Your task to perform on an android device: open device folders in google photos Image 0: 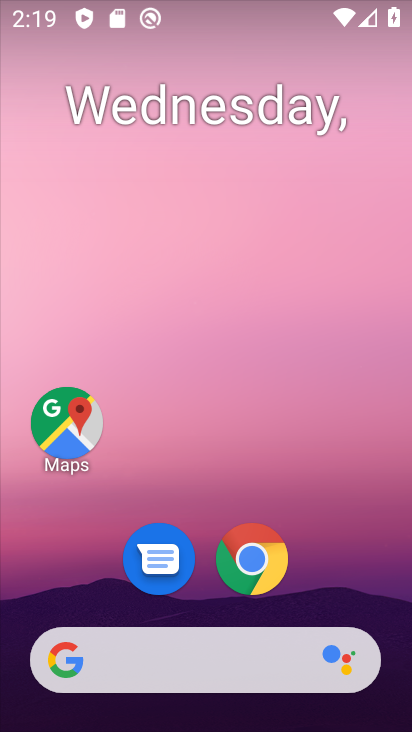
Step 0: drag from (332, 574) to (343, 217)
Your task to perform on an android device: open device folders in google photos Image 1: 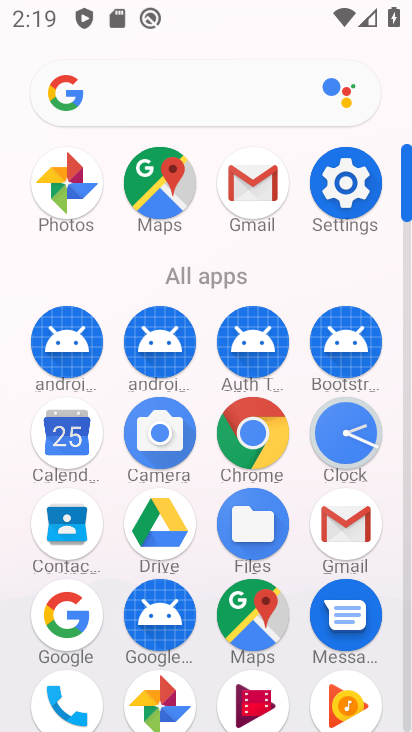
Step 1: click (182, 705)
Your task to perform on an android device: open device folders in google photos Image 2: 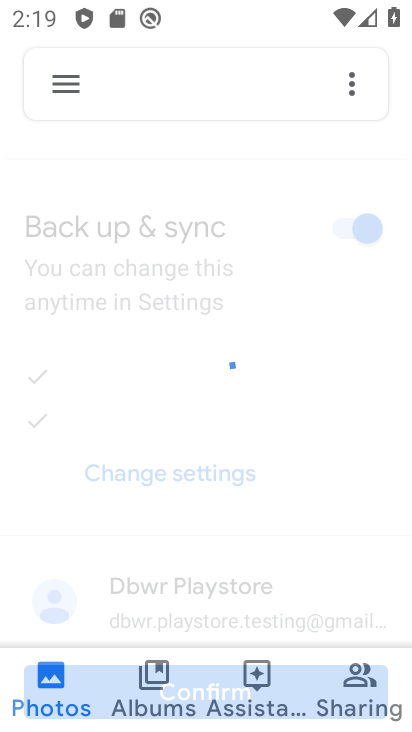
Step 2: click (66, 95)
Your task to perform on an android device: open device folders in google photos Image 3: 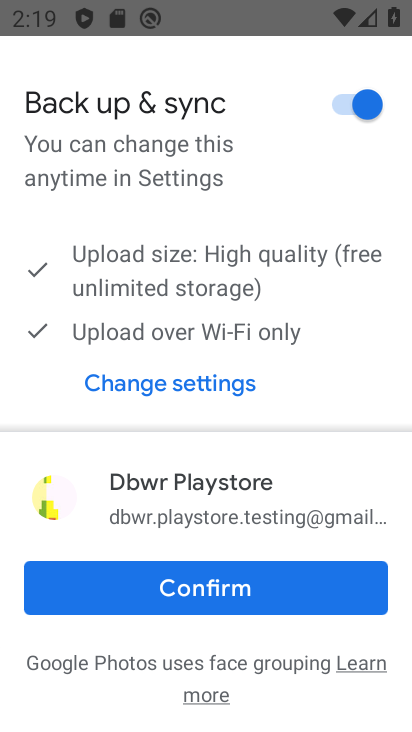
Step 3: click (265, 592)
Your task to perform on an android device: open device folders in google photos Image 4: 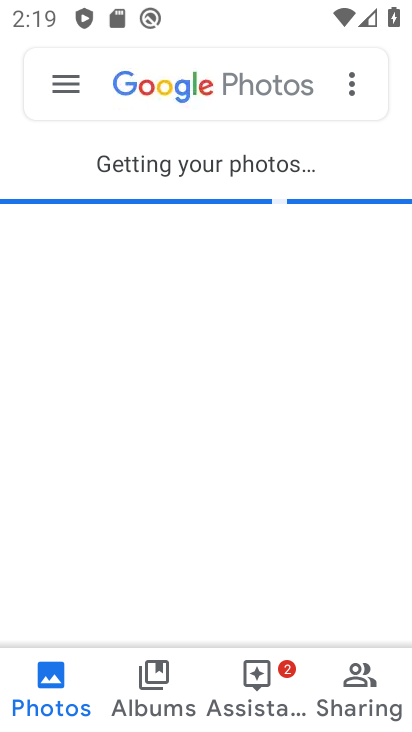
Step 4: click (71, 74)
Your task to perform on an android device: open device folders in google photos Image 5: 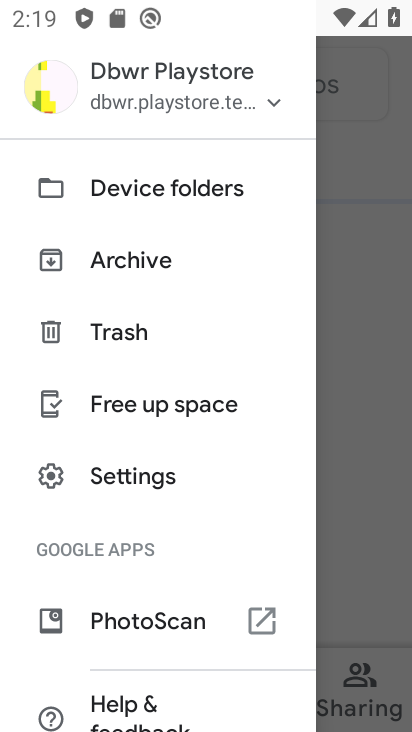
Step 5: click (173, 199)
Your task to perform on an android device: open device folders in google photos Image 6: 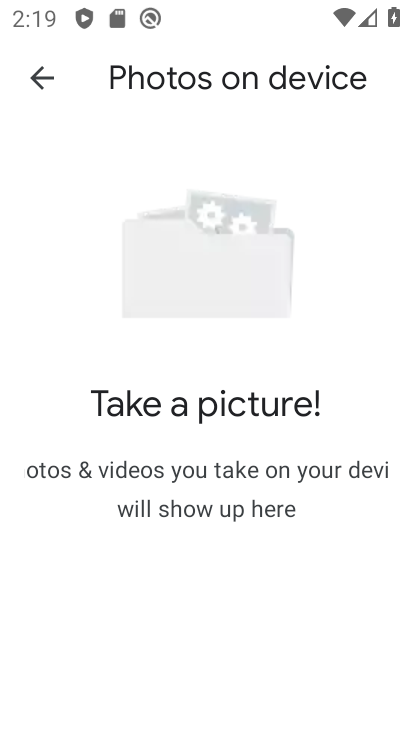
Step 6: task complete